Your task to perform on an android device: Open the settings Image 0: 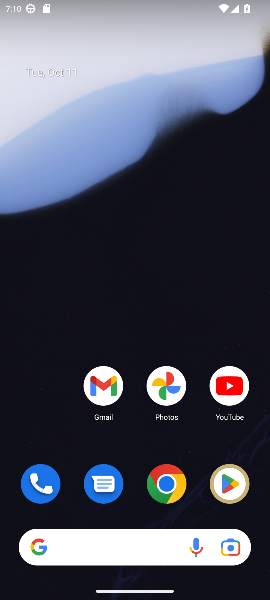
Step 0: drag from (92, 549) to (151, 142)
Your task to perform on an android device: Open the settings Image 1: 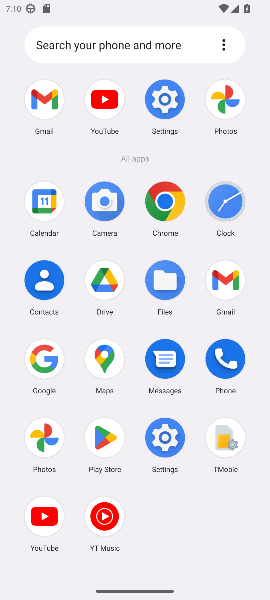
Step 1: click (166, 100)
Your task to perform on an android device: Open the settings Image 2: 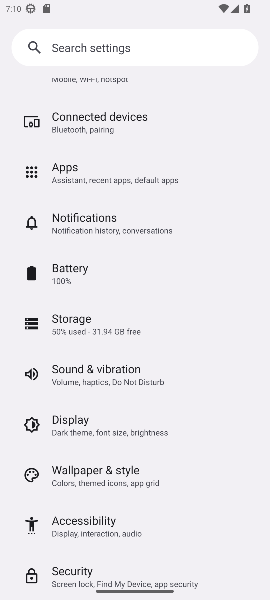
Step 2: task complete